Your task to perform on an android device: turn on the 24-hour format for clock Image 0: 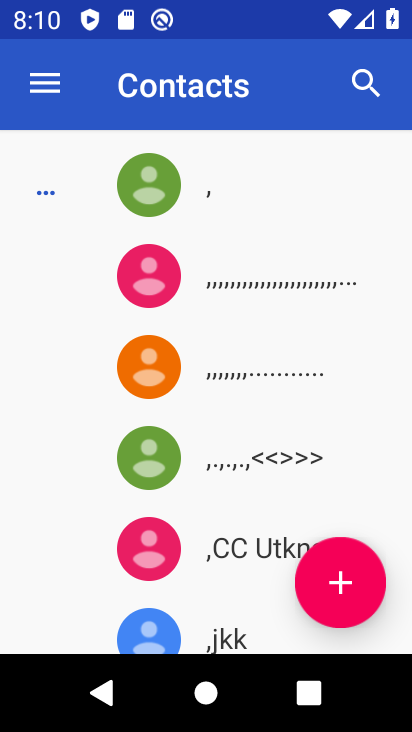
Step 0: press home button
Your task to perform on an android device: turn on the 24-hour format for clock Image 1: 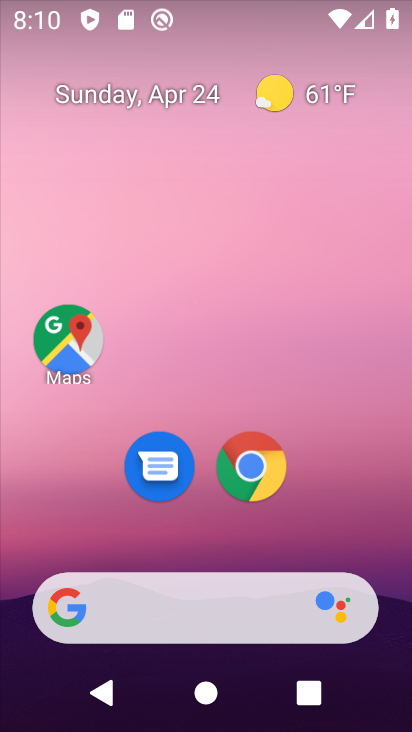
Step 1: drag from (183, 534) to (212, 14)
Your task to perform on an android device: turn on the 24-hour format for clock Image 2: 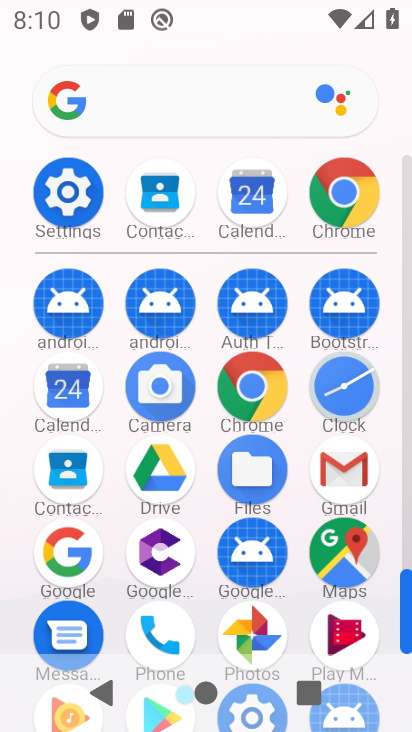
Step 2: click (352, 393)
Your task to perform on an android device: turn on the 24-hour format for clock Image 3: 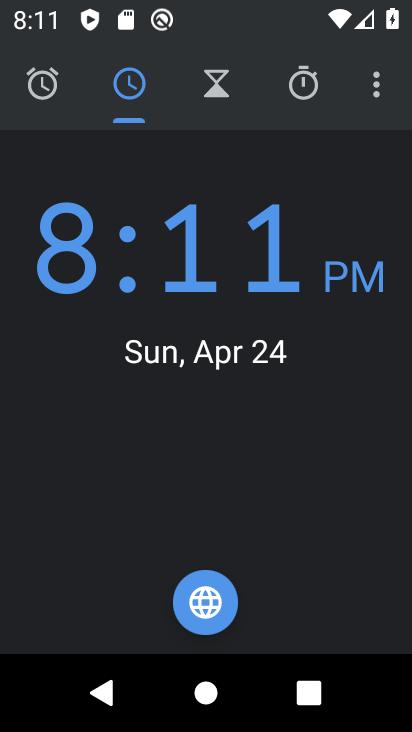
Step 3: click (380, 92)
Your task to perform on an android device: turn on the 24-hour format for clock Image 4: 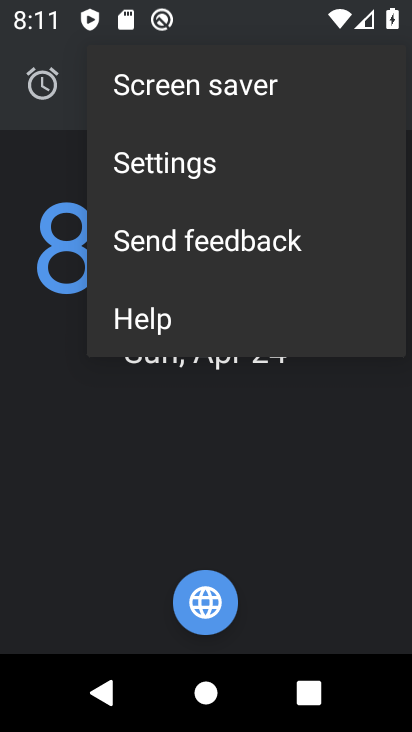
Step 4: click (198, 168)
Your task to perform on an android device: turn on the 24-hour format for clock Image 5: 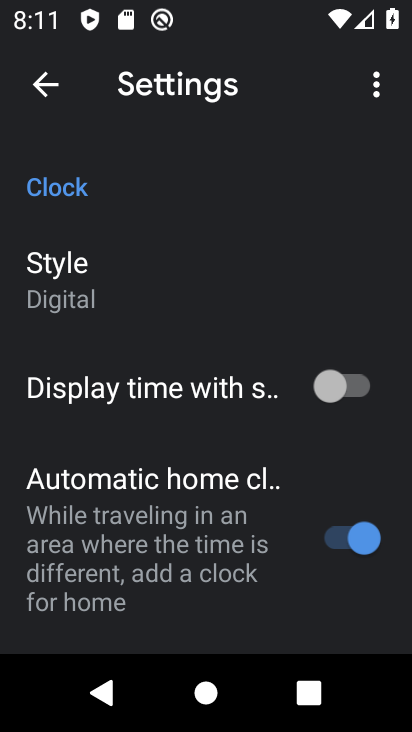
Step 5: press home button
Your task to perform on an android device: turn on the 24-hour format for clock Image 6: 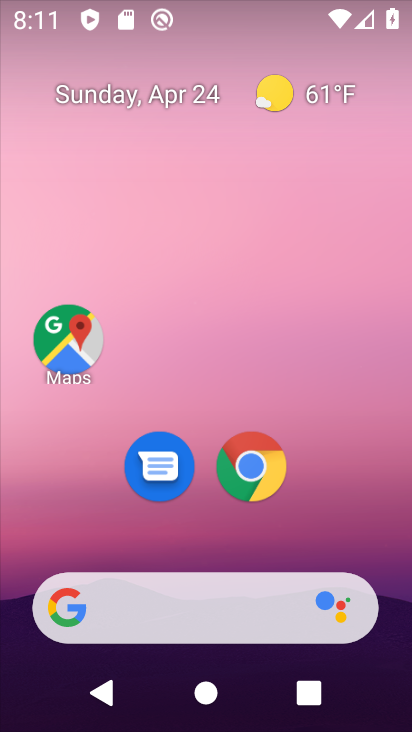
Step 6: drag from (192, 452) to (310, 5)
Your task to perform on an android device: turn on the 24-hour format for clock Image 7: 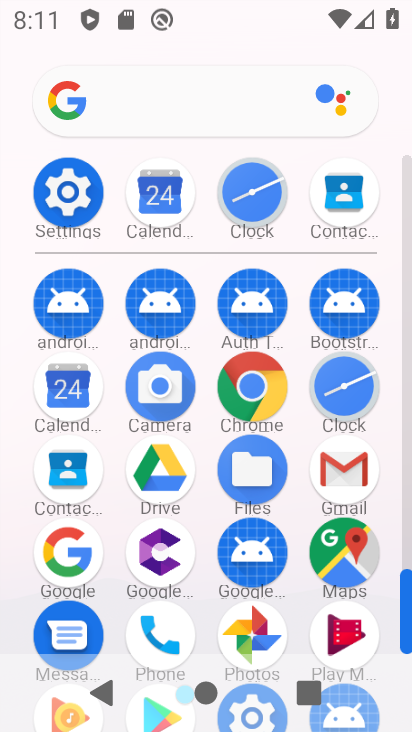
Step 7: click (87, 210)
Your task to perform on an android device: turn on the 24-hour format for clock Image 8: 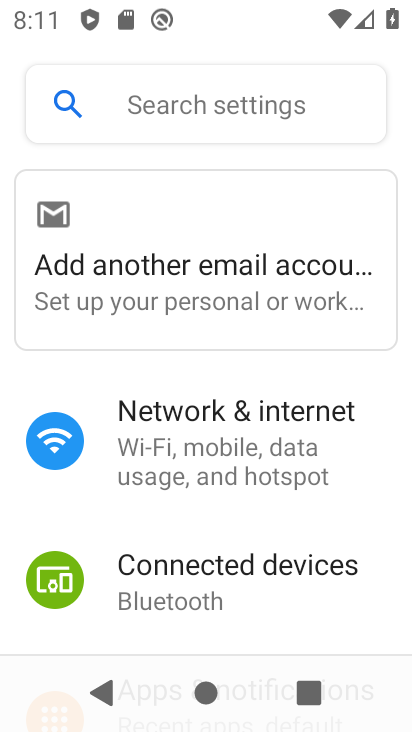
Step 8: drag from (193, 526) to (262, 103)
Your task to perform on an android device: turn on the 24-hour format for clock Image 9: 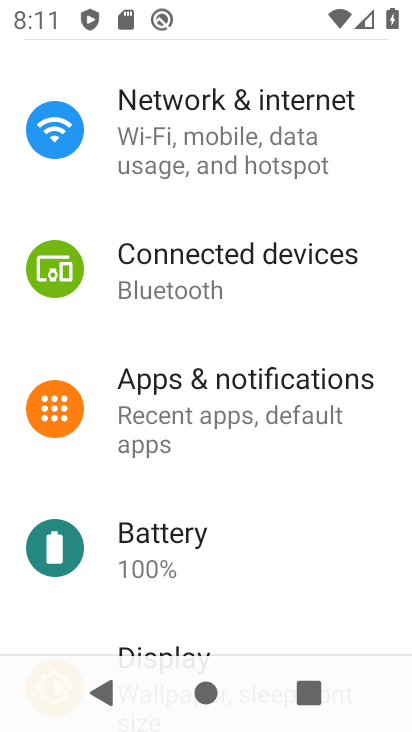
Step 9: drag from (165, 489) to (265, 106)
Your task to perform on an android device: turn on the 24-hour format for clock Image 10: 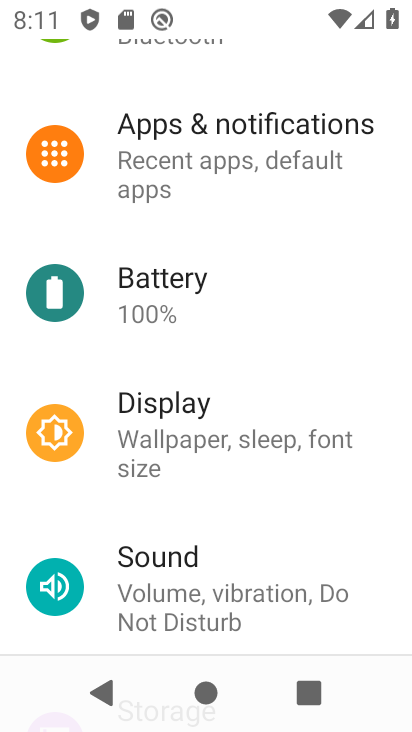
Step 10: drag from (196, 505) to (254, 95)
Your task to perform on an android device: turn on the 24-hour format for clock Image 11: 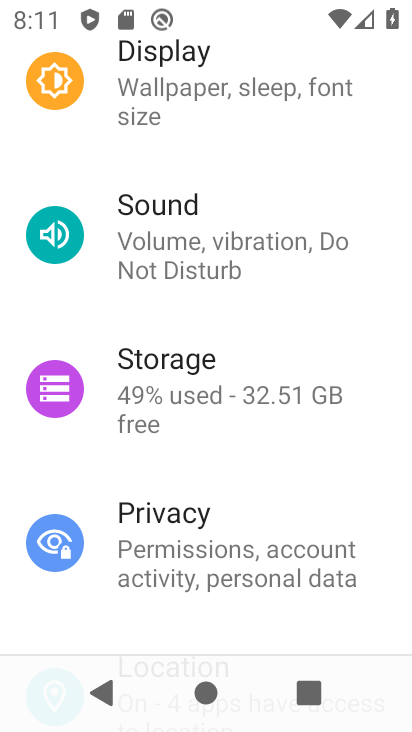
Step 11: drag from (188, 544) to (191, 9)
Your task to perform on an android device: turn on the 24-hour format for clock Image 12: 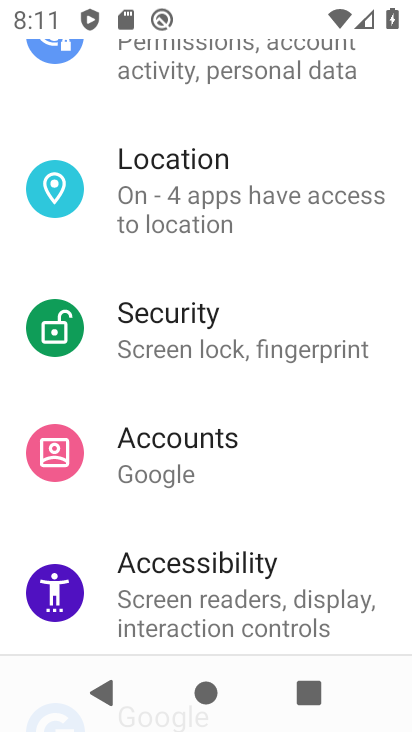
Step 12: drag from (157, 513) to (221, 87)
Your task to perform on an android device: turn on the 24-hour format for clock Image 13: 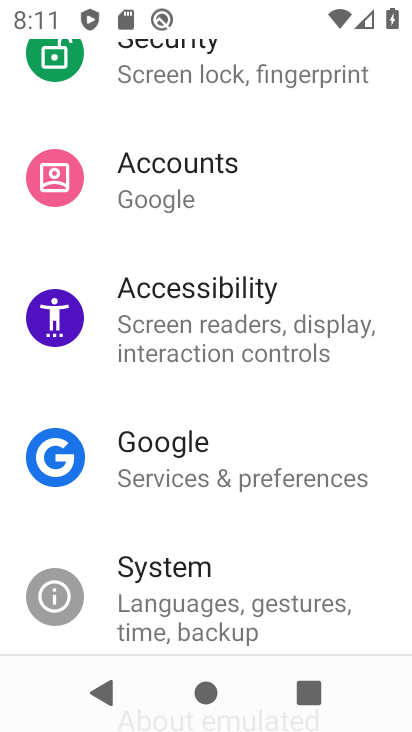
Step 13: click (178, 571)
Your task to perform on an android device: turn on the 24-hour format for clock Image 14: 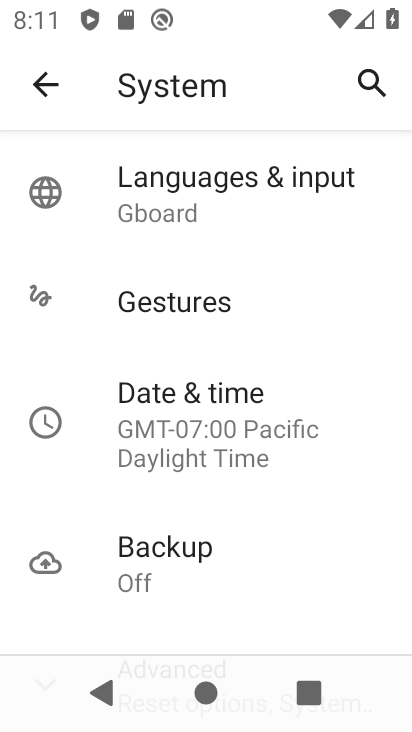
Step 14: click (188, 441)
Your task to perform on an android device: turn on the 24-hour format for clock Image 15: 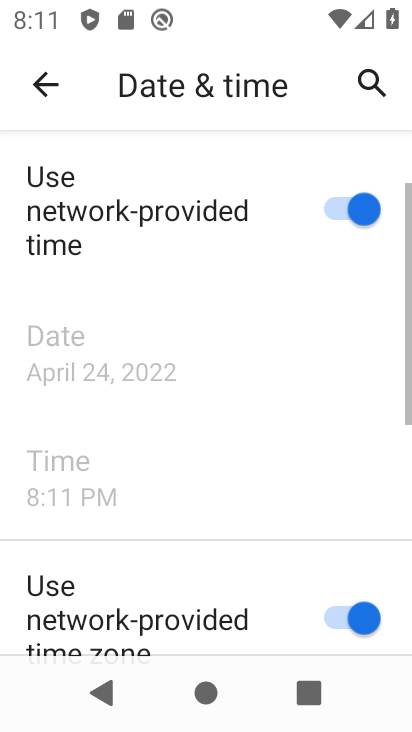
Step 15: drag from (144, 547) to (241, 68)
Your task to perform on an android device: turn on the 24-hour format for clock Image 16: 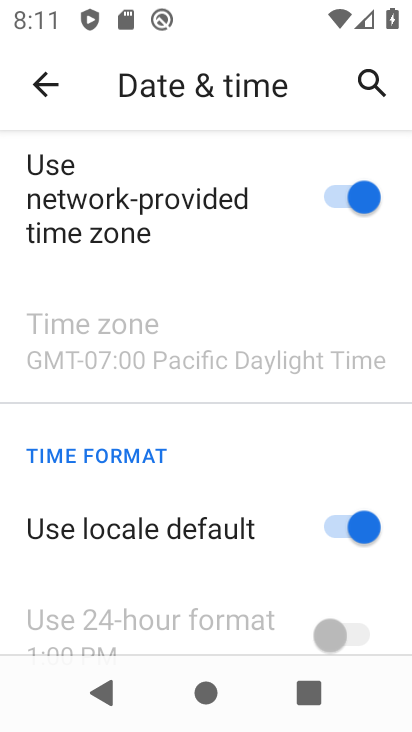
Step 16: click (338, 506)
Your task to perform on an android device: turn on the 24-hour format for clock Image 17: 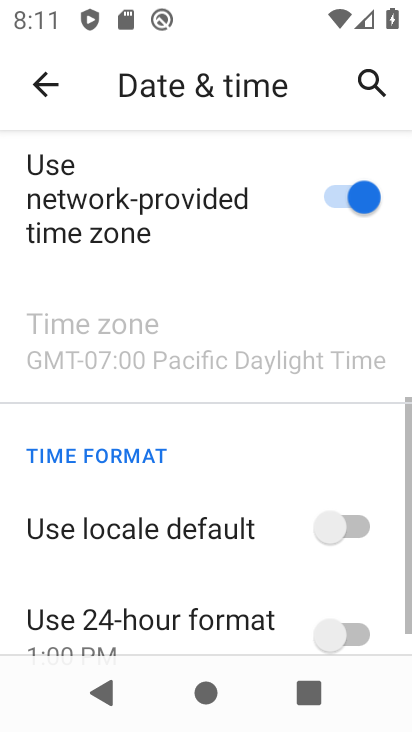
Step 17: click (367, 627)
Your task to perform on an android device: turn on the 24-hour format for clock Image 18: 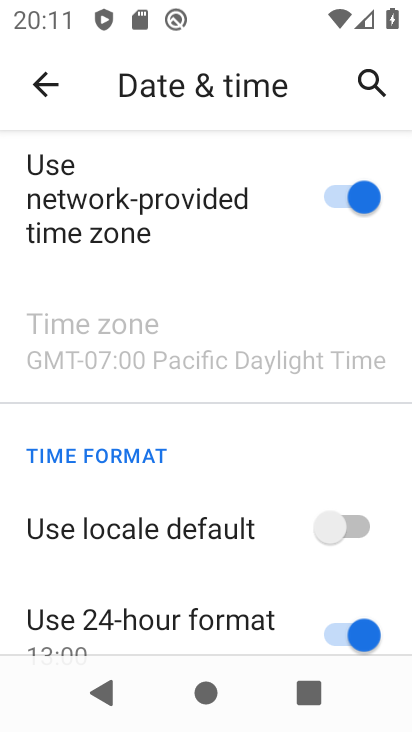
Step 18: task complete